Your task to perform on an android device: Open privacy settings Image 0: 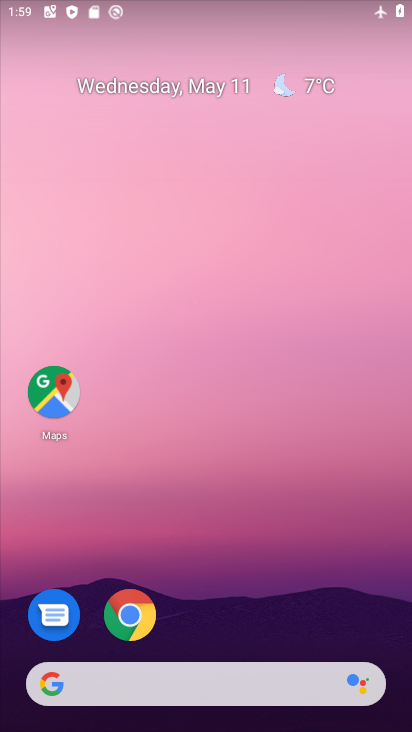
Step 0: drag from (297, 581) to (318, 126)
Your task to perform on an android device: Open privacy settings Image 1: 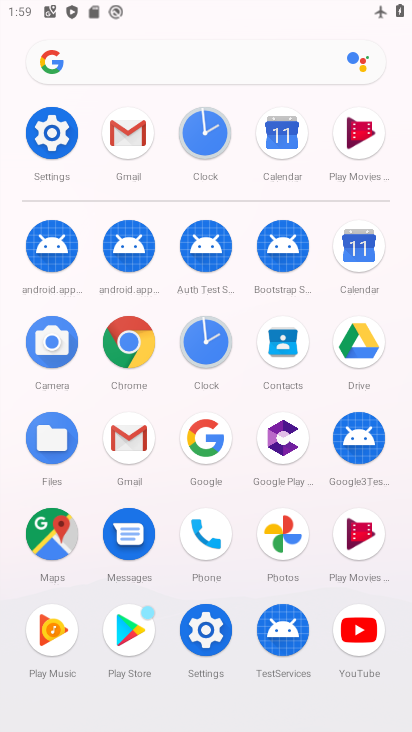
Step 1: click (54, 134)
Your task to perform on an android device: Open privacy settings Image 2: 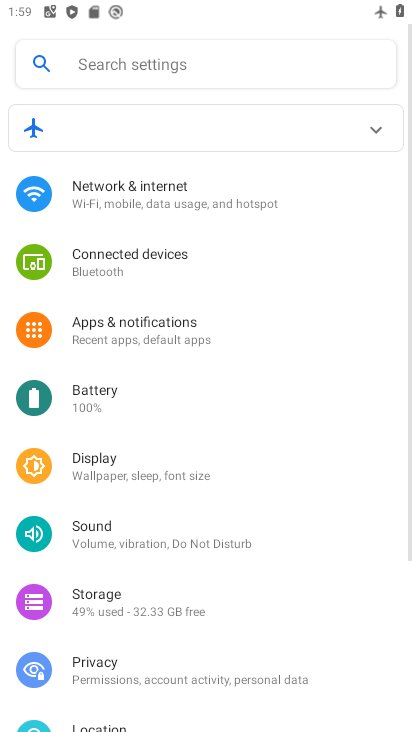
Step 2: drag from (229, 612) to (363, 158)
Your task to perform on an android device: Open privacy settings Image 3: 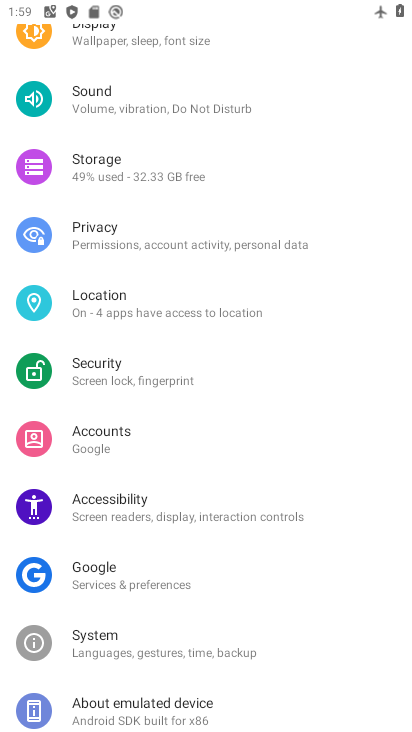
Step 3: drag from (245, 510) to (278, 393)
Your task to perform on an android device: Open privacy settings Image 4: 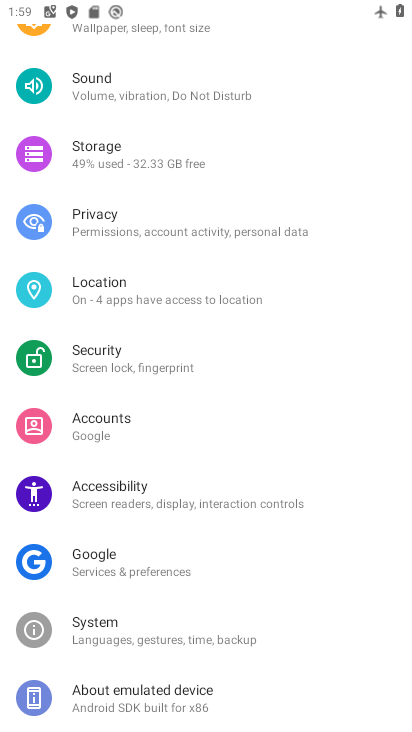
Step 4: click (118, 218)
Your task to perform on an android device: Open privacy settings Image 5: 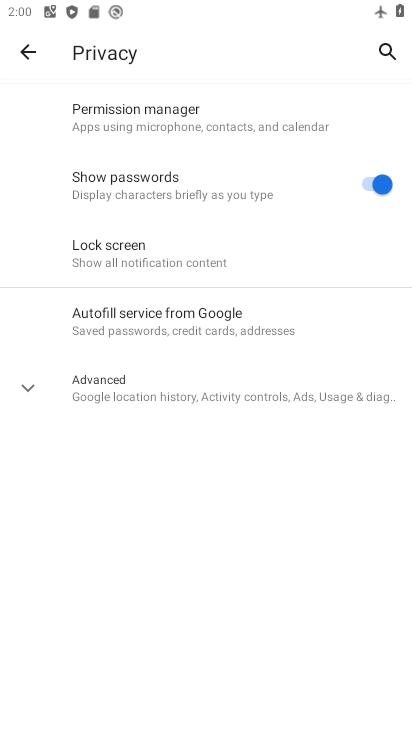
Step 5: task complete